Your task to perform on an android device: see creations saved in the google photos Image 0: 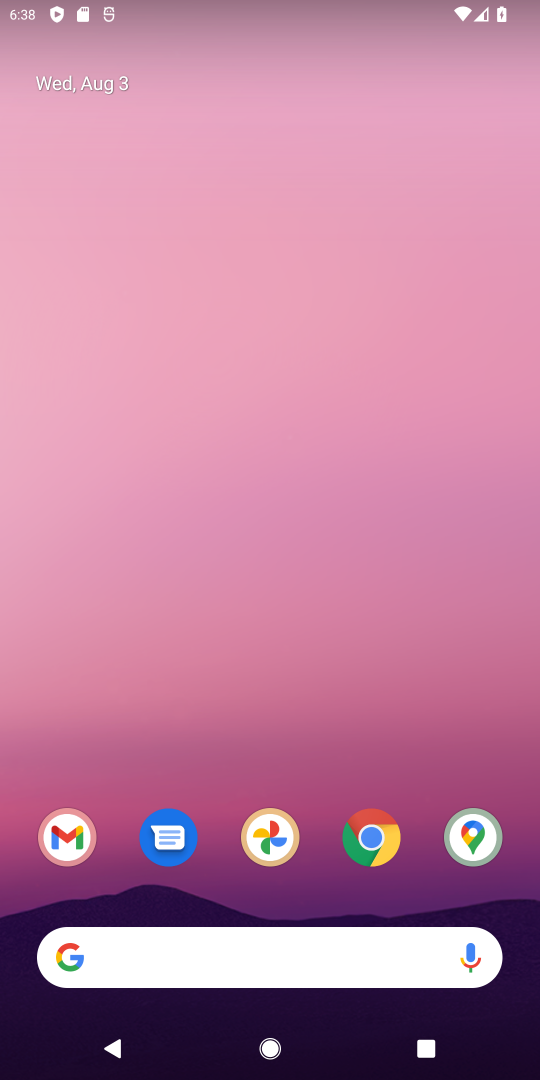
Step 0: press home button
Your task to perform on an android device: see creations saved in the google photos Image 1: 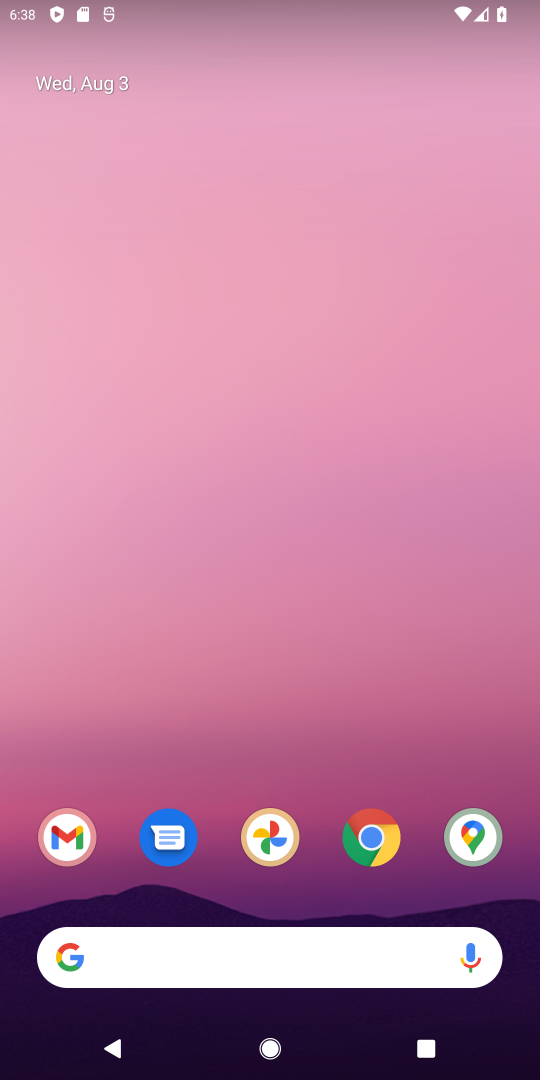
Step 1: drag from (328, 720) to (357, 5)
Your task to perform on an android device: see creations saved in the google photos Image 2: 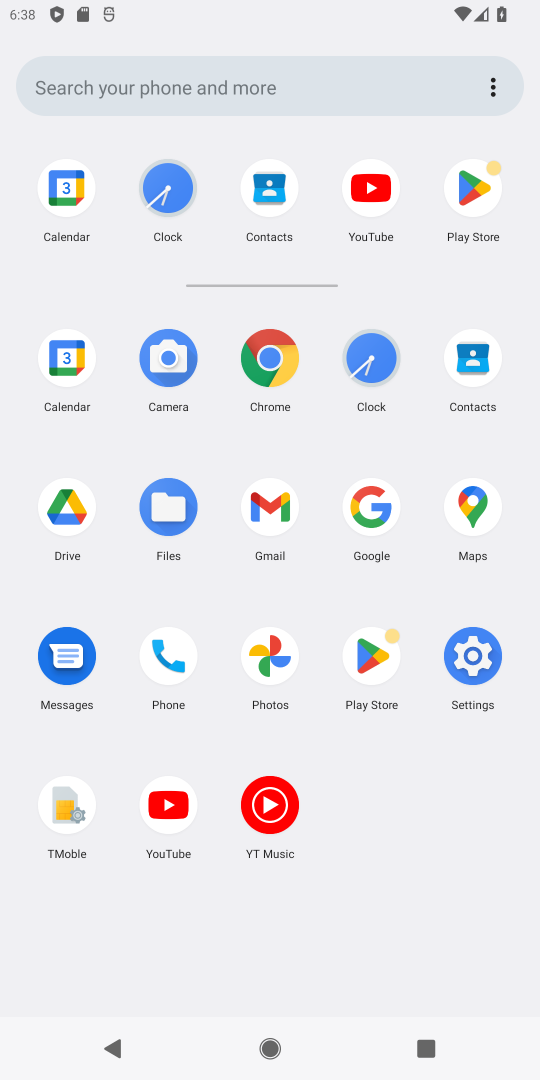
Step 2: click (279, 636)
Your task to perform on an android device: see creations saved in the google photos Image 3: 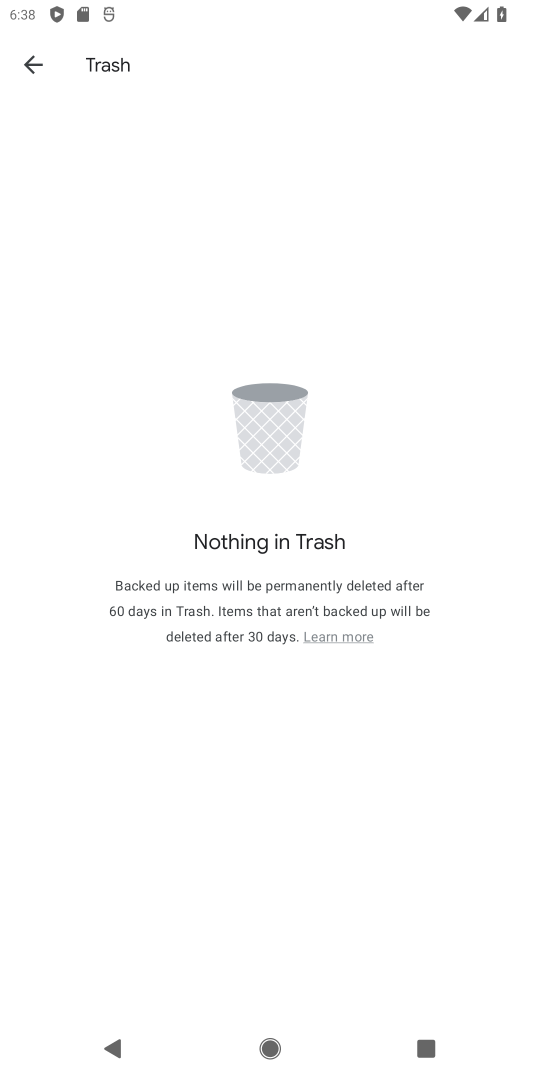
Step 3: click (23, 57)
Your task to perform on an android device: see creations saved in the google photos Image 4: 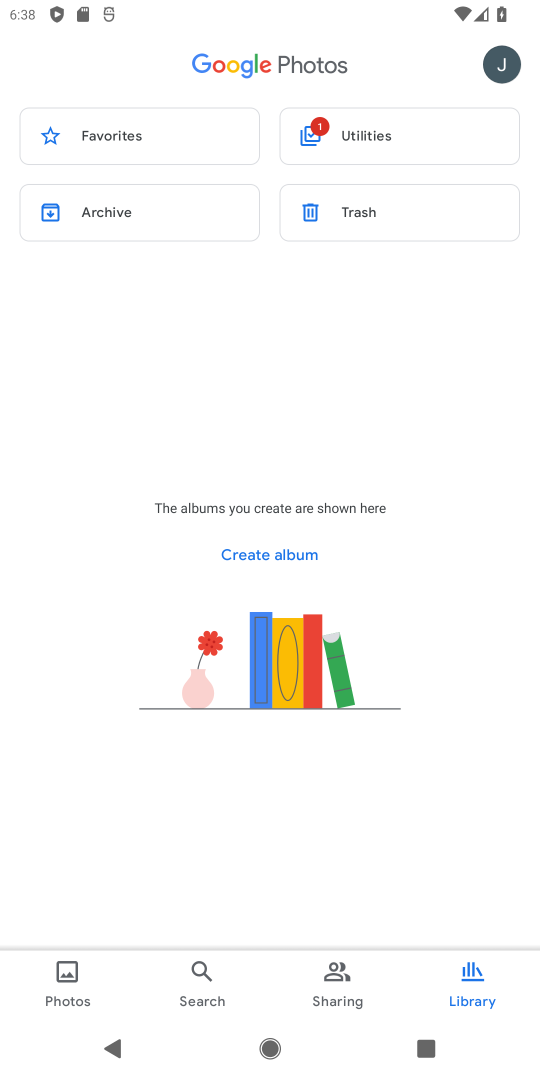
Step 4: click (214, 977)
Your task to perform on an android device: see creations saved in the google photos Image 5: 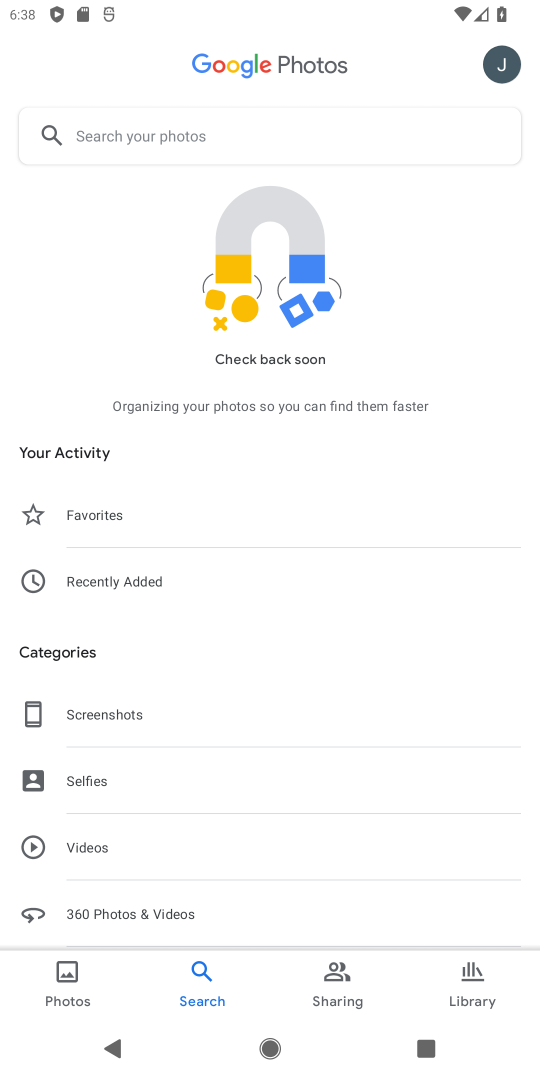
Step 5: drag from (260, 629) to (234, 241)
Your task to perform on an android device: see creations saved in the google photos Image 6: 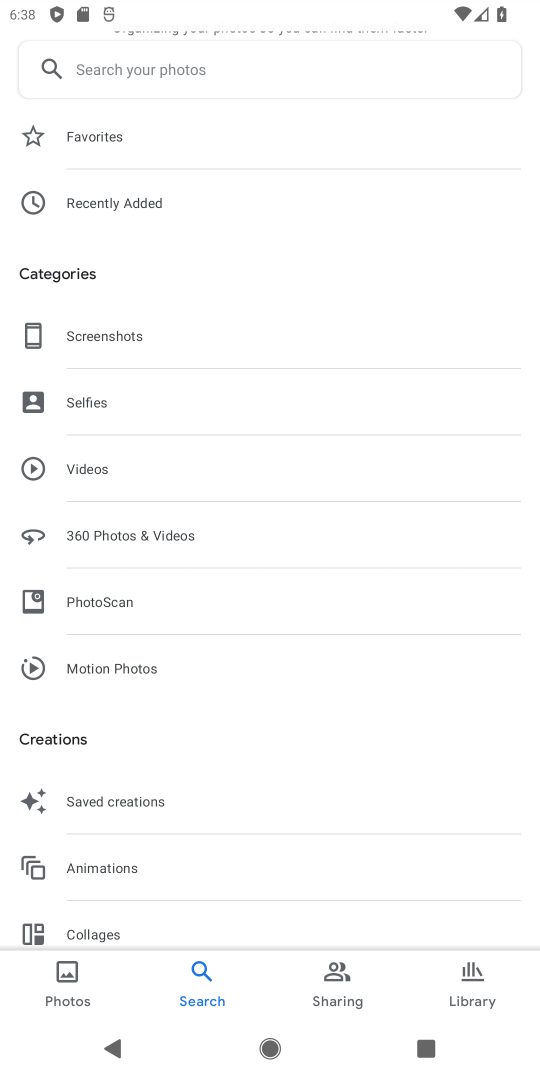
Step 6: click (127, 797)
Your task to perform on an android device: see creations saved in the google photos Image 7: 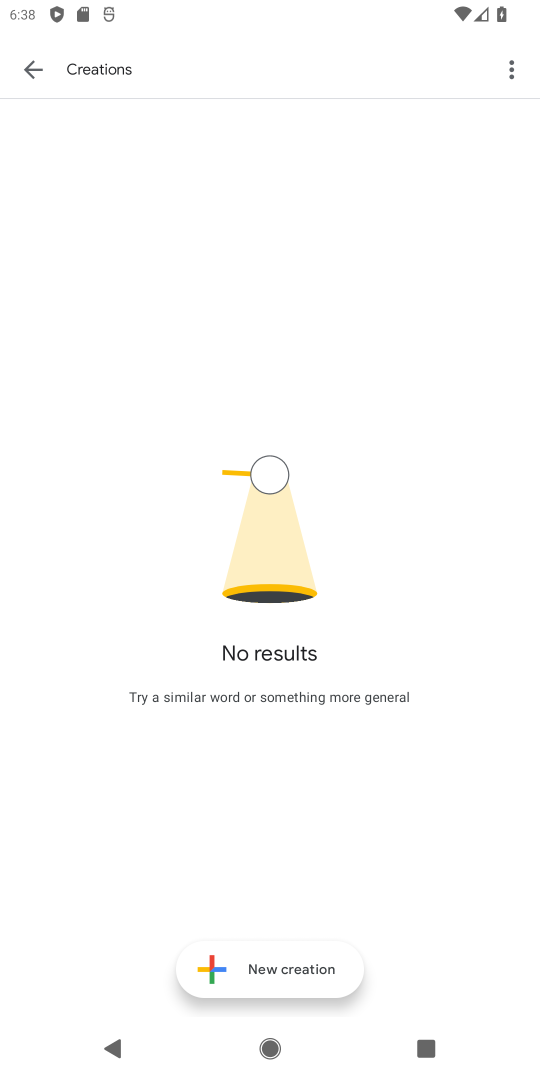
Step 7: task complete